Your task to perform on an android device: change the clock display to show seconds Image 0: 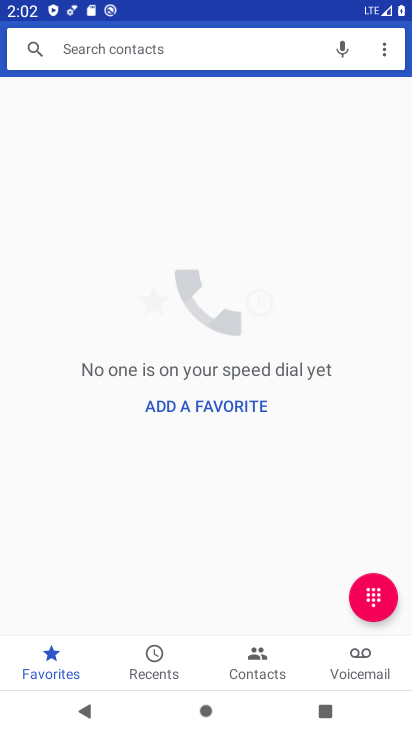
Step 0: press home button
Your task to perform on an android device: change the clock display to show seconds Image 1: 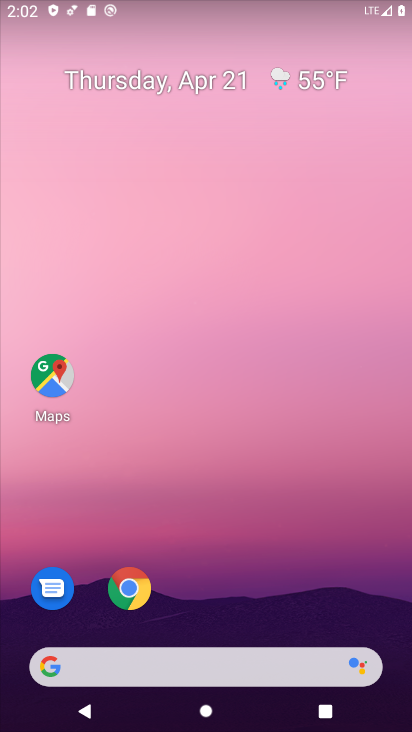
Step 1: drag from (296, 601) to (309, 22)
Your task to perform on an android device: change the clock display to show seconds Image 2: 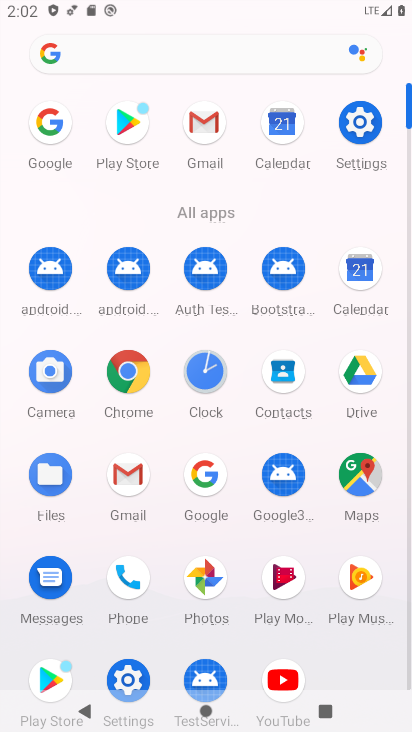
Step 2: click (189, 381)
Your task to perform on an android device: change the clock display to show seconds Image 3: 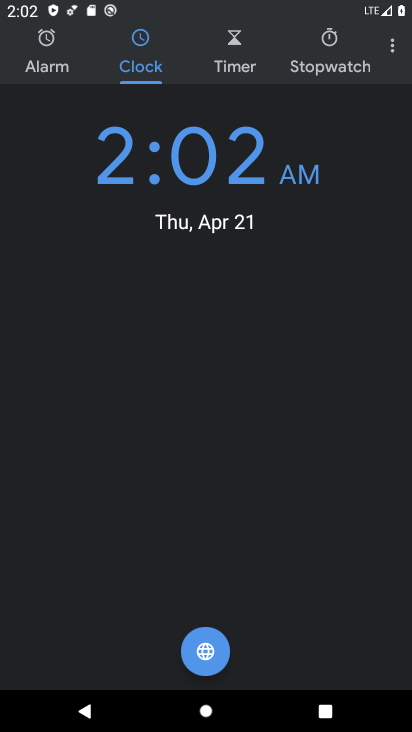
Step 3: click (385, 37)
Your task to perform on an android device: change the clock display to show seconds Image 4: 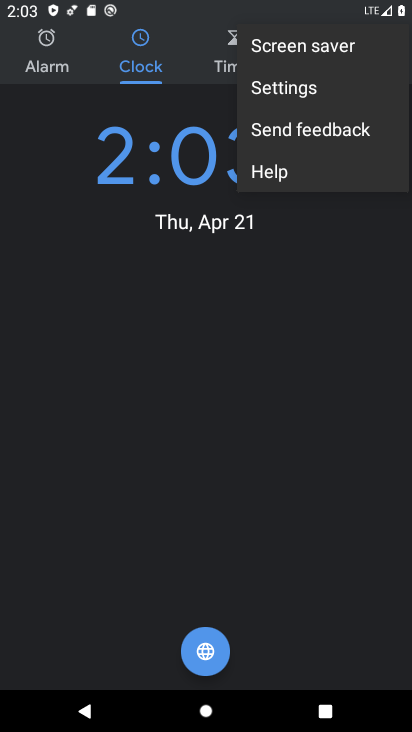
Step 4: click (336, 82)
Your task to perform on an android device: change the clock display to show seconds Image 5: 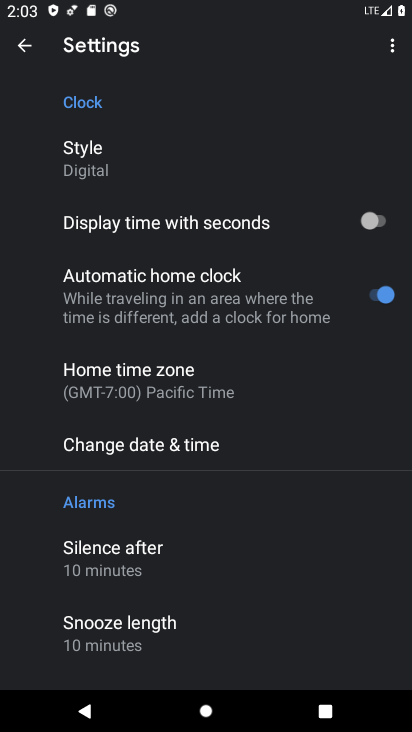
Step 5: click (372, 219)
Your task to perform on an android device: change the clock display to show seconds Image 6: 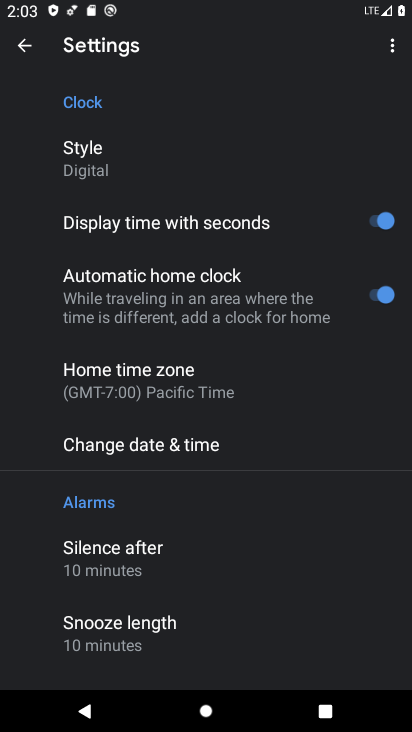
Step 6: task complete